Your task to perform on an android device: Search for sushi restaurants on Maps Image 0: 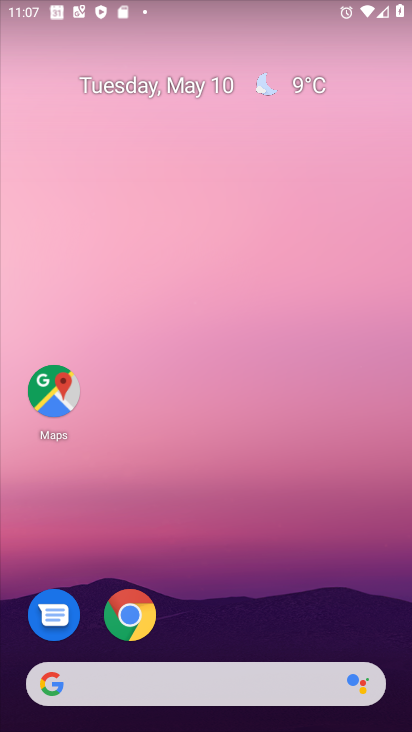
Step 0: press home button
Your task to perform on an android device: Search for sushi restaurants on Maps Image 1: 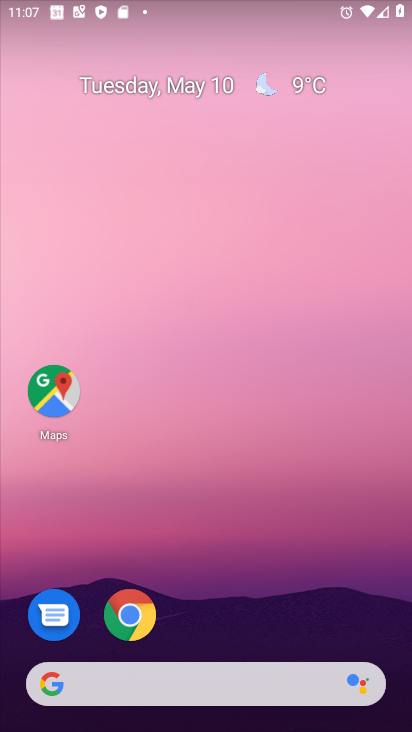
Step 1: click (55, 386)
Your task to perform on an android device: Search for sushi restaurants on Maps Image 2: 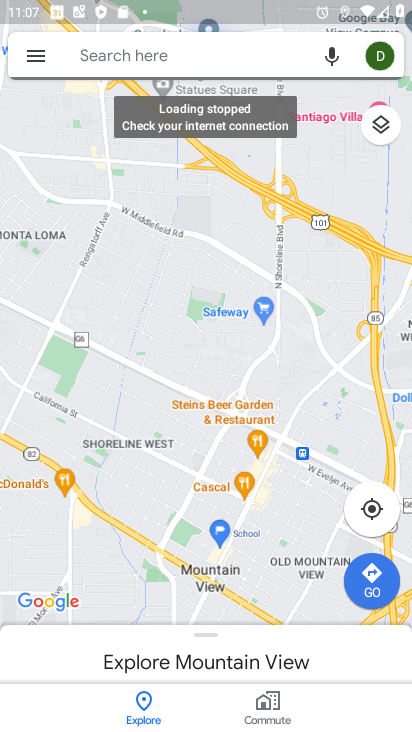
Step 2: click (136, 49)
Your task to perform on an android device: Search for sushi restaurants on Maps Image 3: 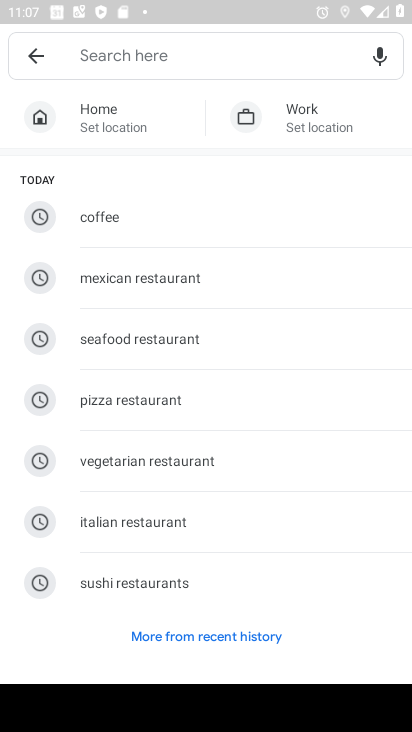
Step 3: click (199, 578)
Your task to perform on an android device: Search for sushi restaurants on Maps Image 4: 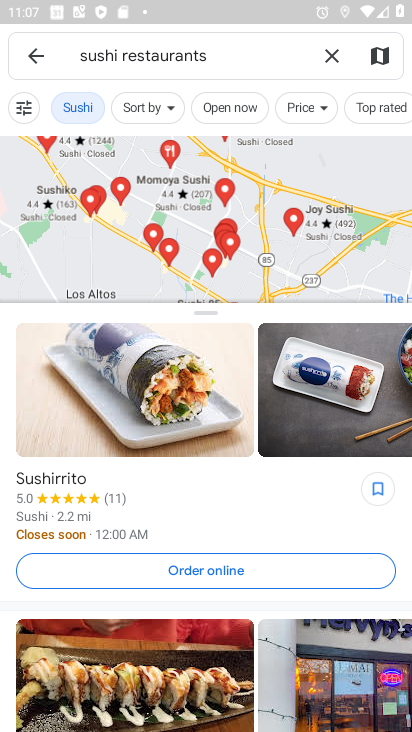
Step 4: task complete